Your task to perform on an android device: Open sound settings Image 0: 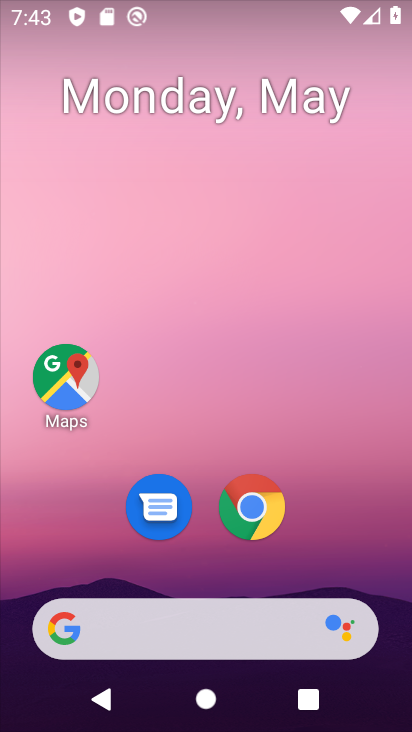
Step 0: drag from (342, 586) to (361, 19)
Your task to perform on an android device: Open sound settings Image 1: 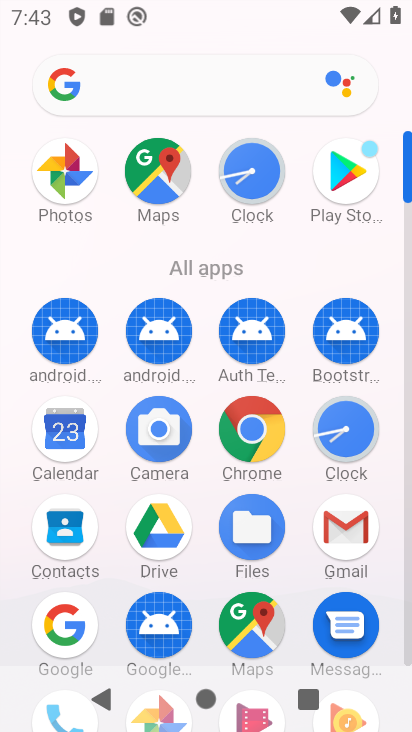
Step 1: drag from (406, 565) to (408, 508)
Your task to perform on an android device: Open sound settings Image 2: 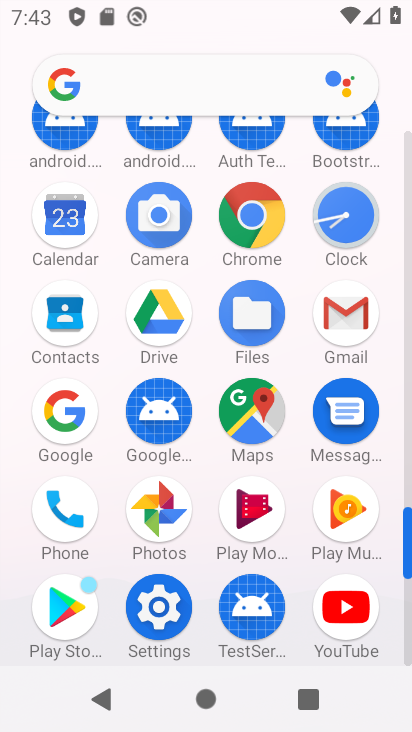
Step 2: click (161, 609)
Your task to perform on an android device: Open sound settings Image 3: 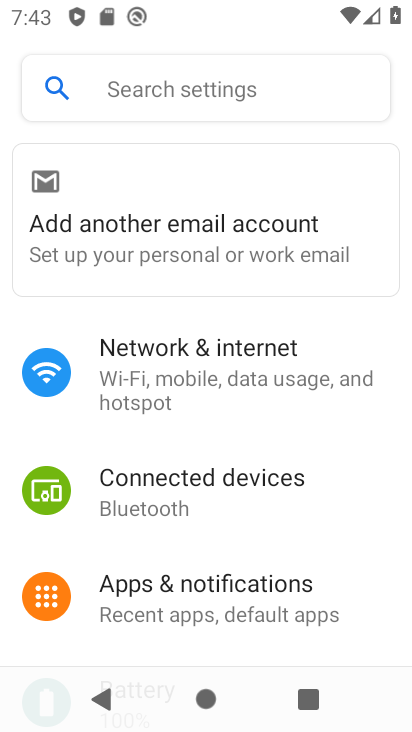
Step 3: drag from (351, 615) to (337, 212)
Your task to perform on an android device: Open sound settings Image 4: 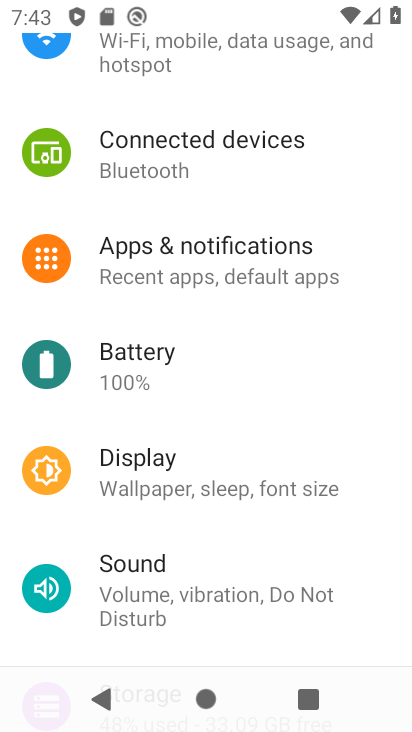
Step 4: click (114, 575)
Your task to perform on an android device: Open sound settings Image 5: 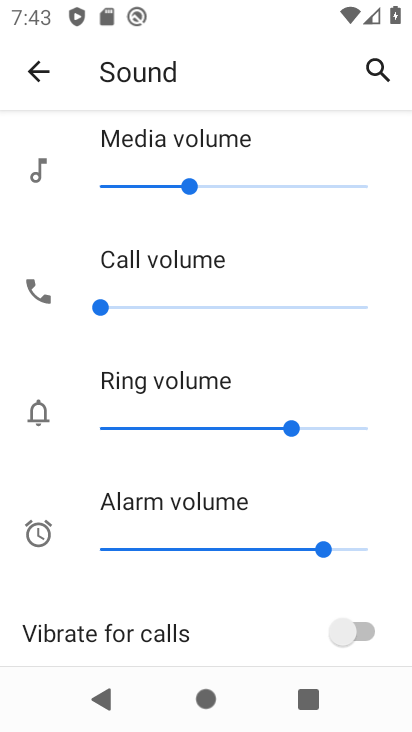
Step 5: task complete